Your task to perform on an android device: Turn off the flashlight Image 0: 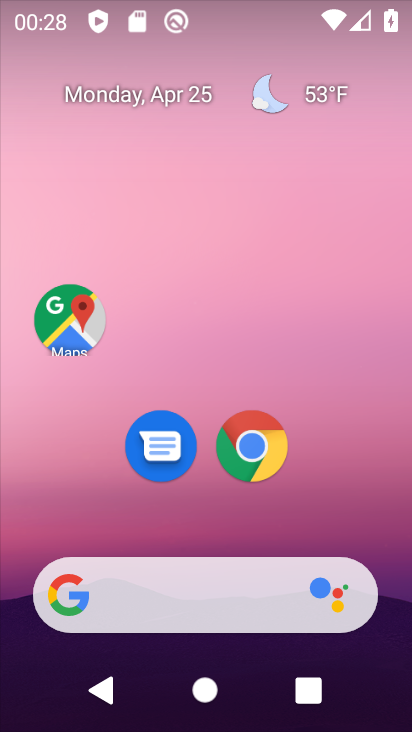
Step 0: drag from (227, 540) to (230, 1)
Your task to perform on an android device: Turn off the flashlight Image 1: 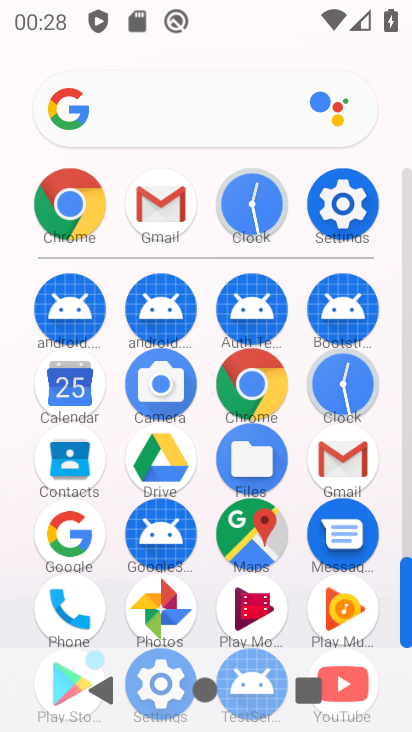
Step 1: click (340, 192)
Your task to perform on an android device: Turn off the flashlight Image 2: 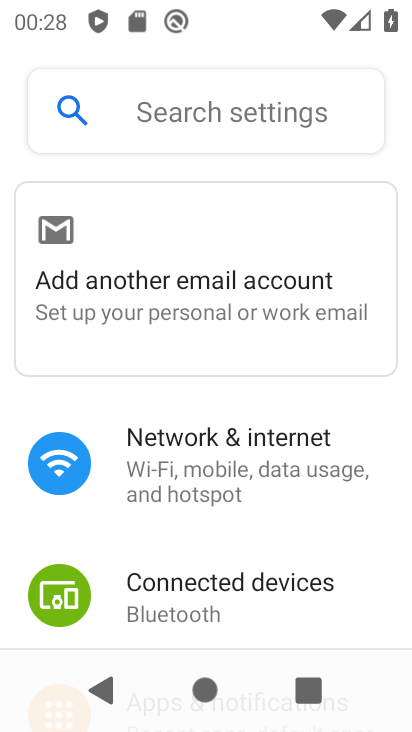
Step 2: click (201, 128)
Your task to perform on an android device: Turn off the flashlight Image 3: 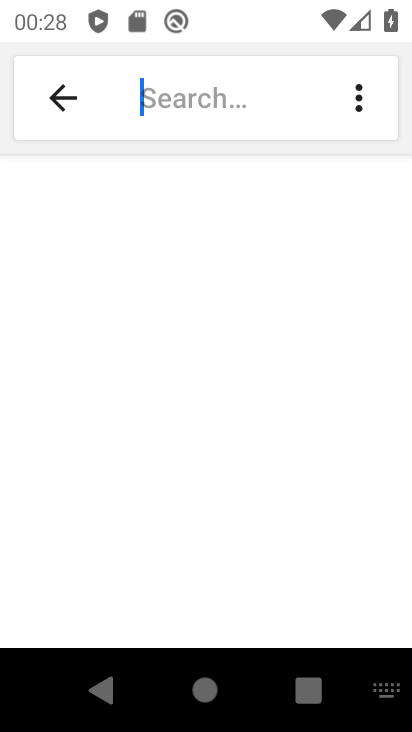
Step 3: type "flashlight"
Your task to perform on an android device: Turn off the flashlight Image 4: 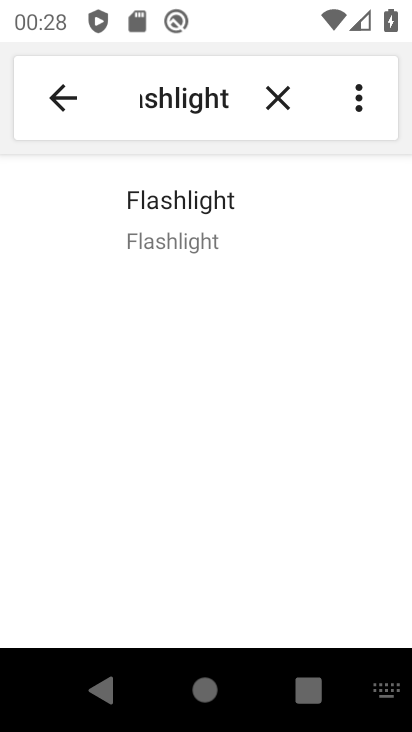
Step 4: click (225, 223)
Your task to perform on an android device: Turn off the flashlight Image 5: 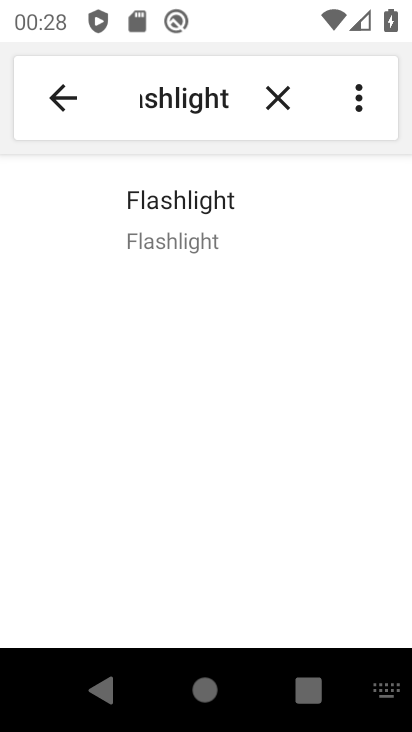
Step 5: click (223, 224)
Your task to perform on an android device: Turn off the flashlight Image 6: 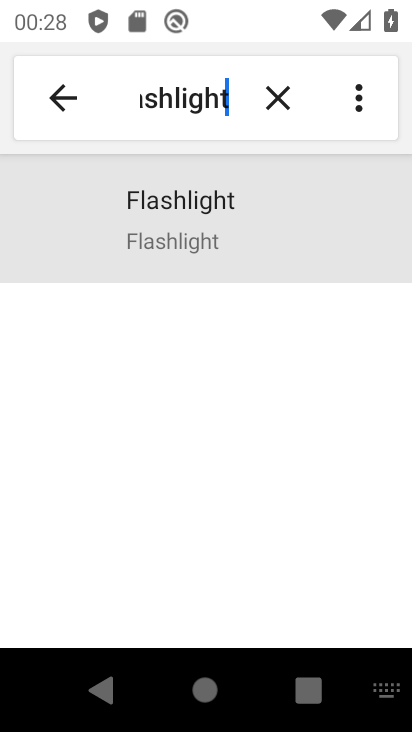
Step 6: click (223, 224)
Your task to perform on an android device: Turn off the flashlight Image 7: 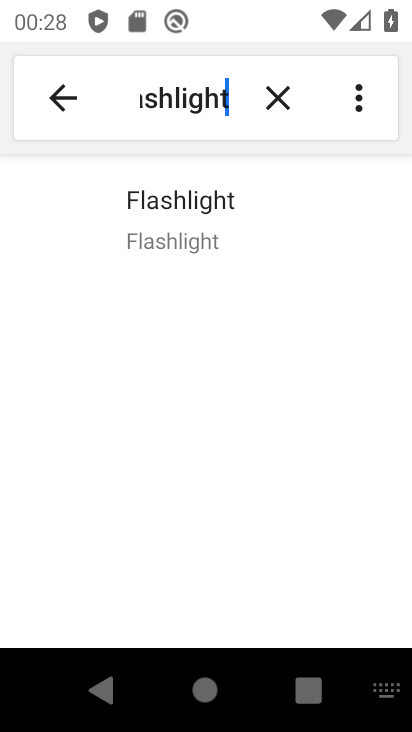
Step 7: click (218, 227)
Your task to perform on an android device: Turn off the flashlight Image 8: 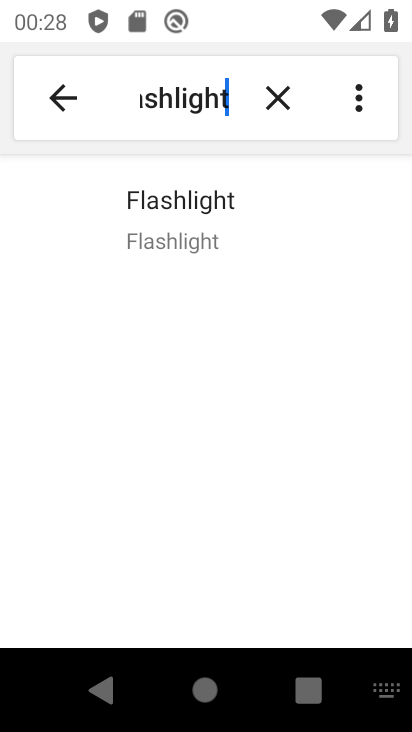
Step 8: task complete